Your task to perform on an android device: turn on priority inbox in the gmail app Image 0: 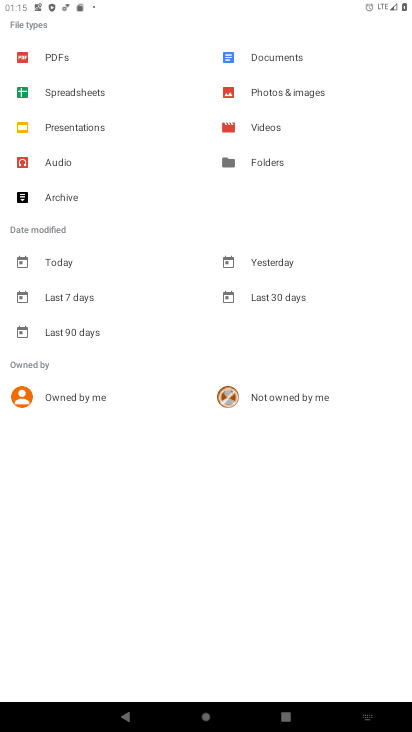
Step 0: press home button
Your task to perform on an android device: turn on priority inbox in the gmail app Image 1: 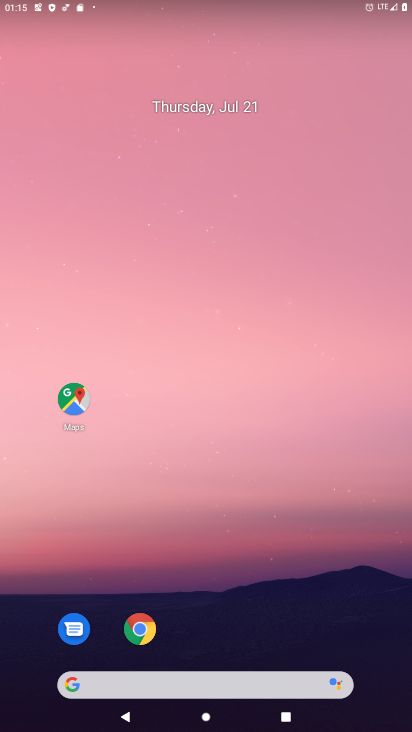
Step 1: drag from (217, 6) to (366, 46)
Your task to perform on an android device: turn on priority inbox in the gmail app Image 2: 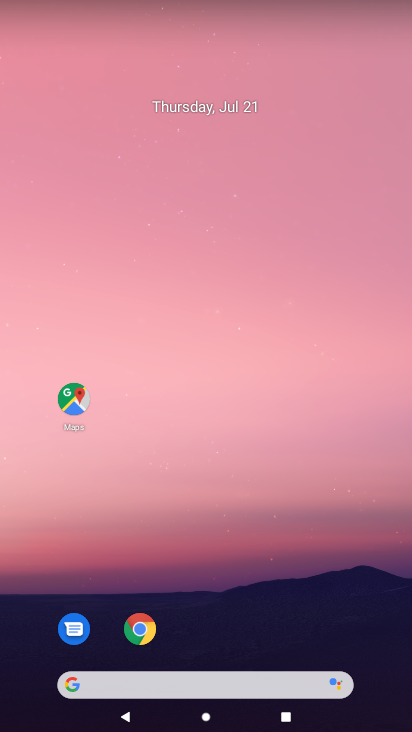
Step 2: drag from (306, 495) to (255, 2)
Your task to perform on an android device: turn on priority inbox in the gmail app Image 3: 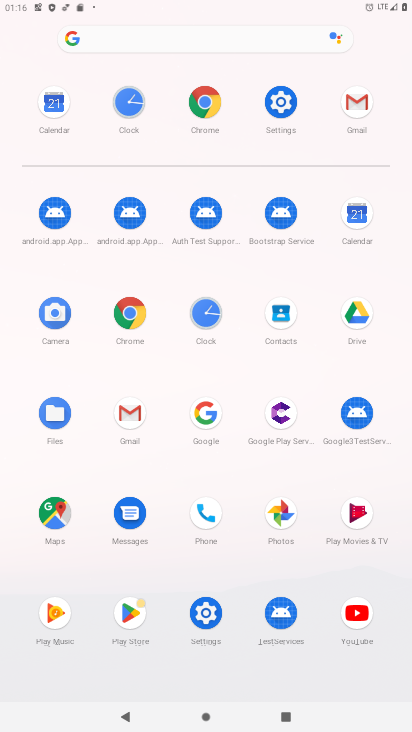
Step 3: click (362, 98)
Your task to perform on an android device: turn on priority inbox in the gmail app Image 4: 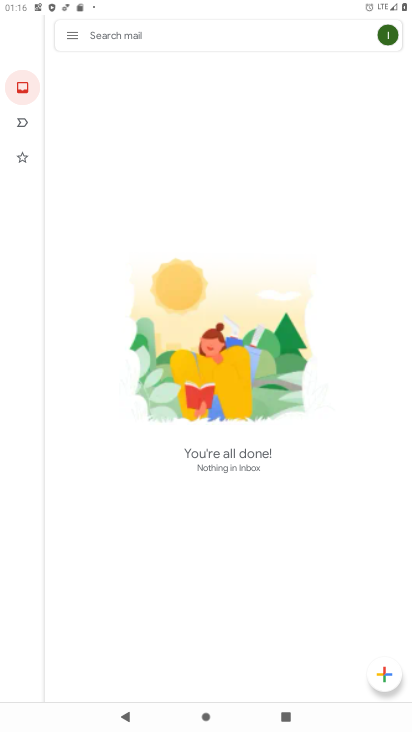
Step 4: click (61, 29)
Your task to perform on an android device: turn on priority inbox in the gmail app Image 5: 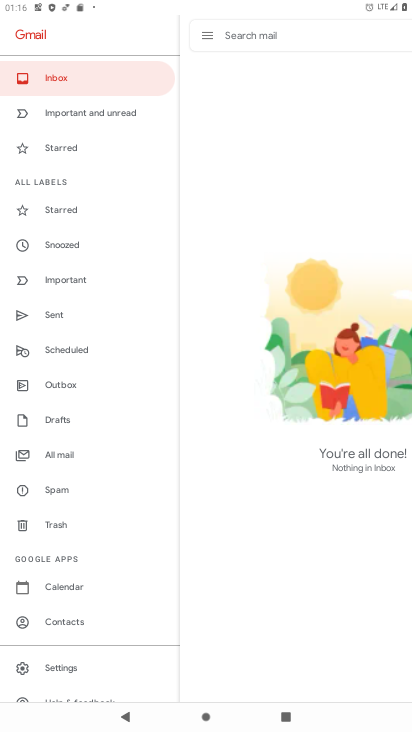
Step 5: click (58, 672)
Your task to perform on an android device: turn on priority inbox in the gmail app Image 6: 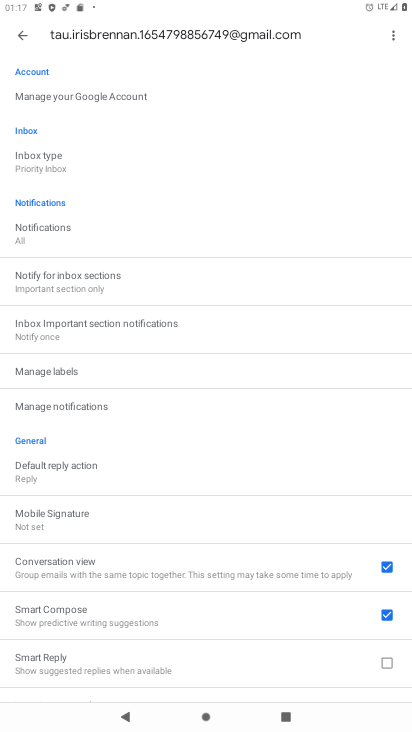
Step 6: click (58, 157)
Your task to perform on an android device: turn on priority inbox in the gmail app Image 7: 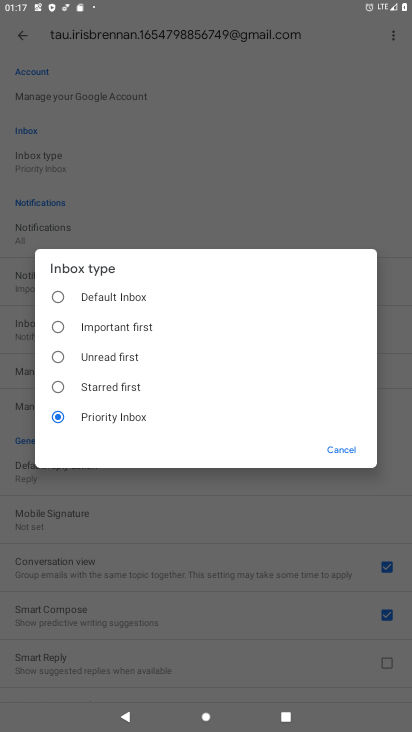
Step 7: task complete